Your task to perform on an android device: Open Youtube and go to "Your channel" Image 0: 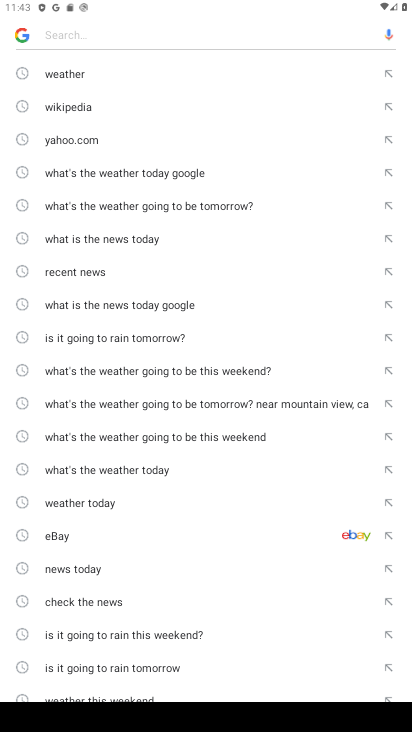
Step 0: press home button
Your task to perform on an android device: Open Youtube and go to "Your channel" Image 1: 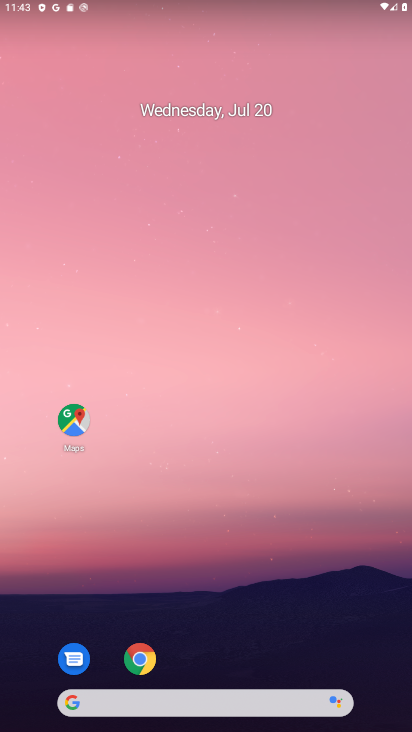
Step 1: drag from (179, 653) to (166, 21)
Your task to perform on an android device: Open Youtube and go to "Your channel" Image 2: 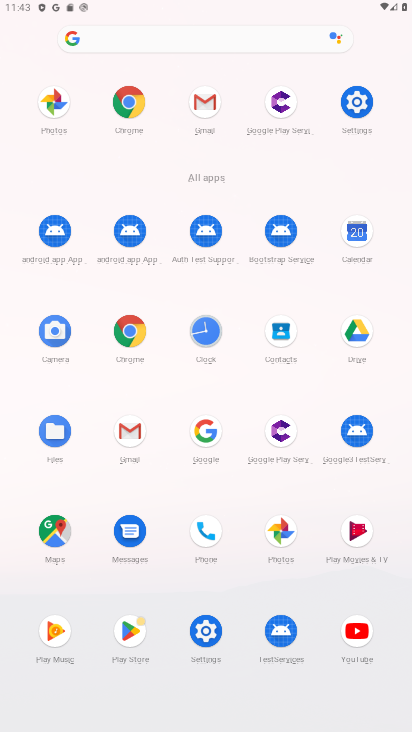
Step 2: click (362, 623)
Your task to perform on an android device: Open Youtube and go to "Your channel" Image 3: 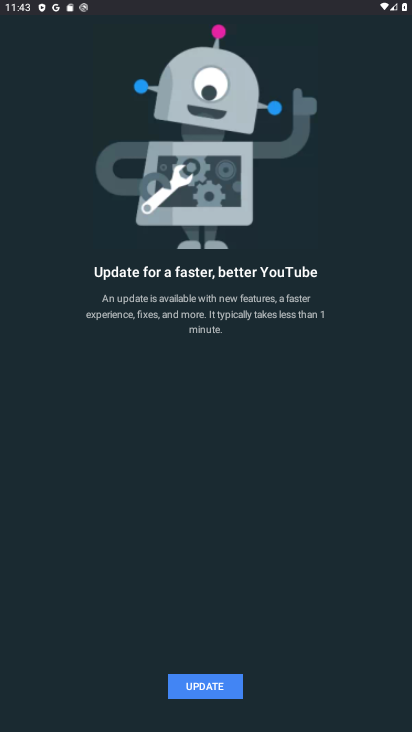
Step 3: click (226, 676)
Your task to perform on an android device: Open Youtube and go to "Your channel" Image 4: 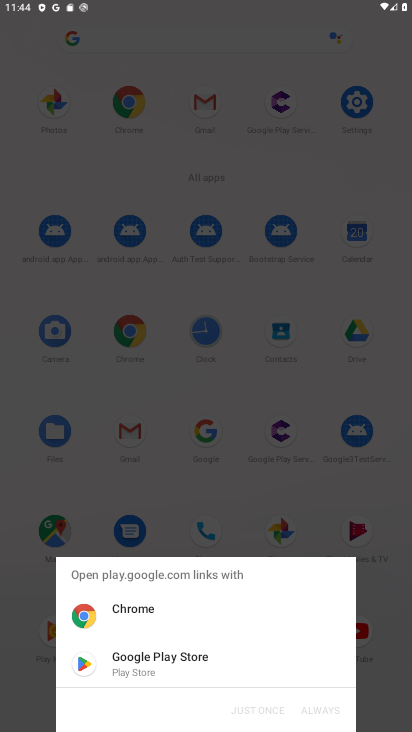
Step 4: click (226, 676)
Your task to perform on an android device: Open Youtube and go to "Your channel" Image 5: 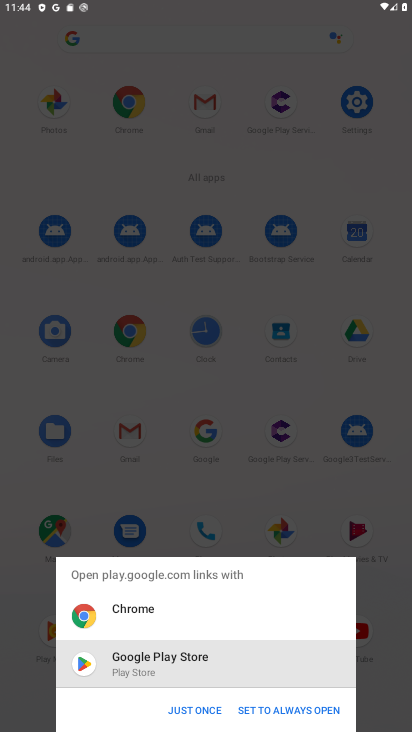
Step 5: click (215, 711)
Your task to perform on an android device: Open Youtube and go to "Your channel" Image 6: 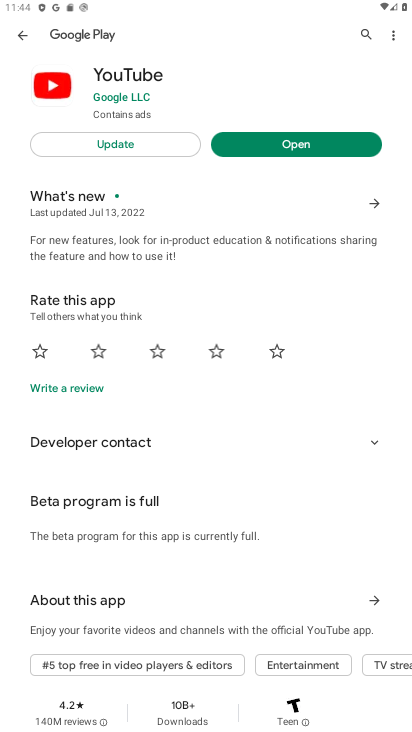
Step 6: click (140, 139)
Your task to perform on an android device: Open Youtube and go to "Your channel" Image 7: 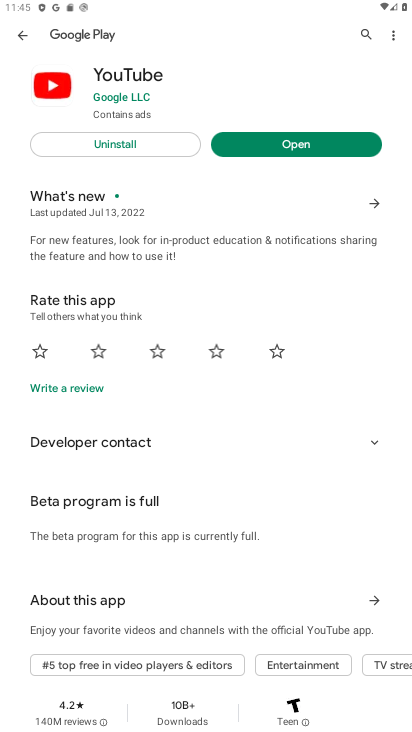
Step 7: click (264, 154)
Your task to perform on an android device: Open Youtube and go to "Your channel" Image 8: 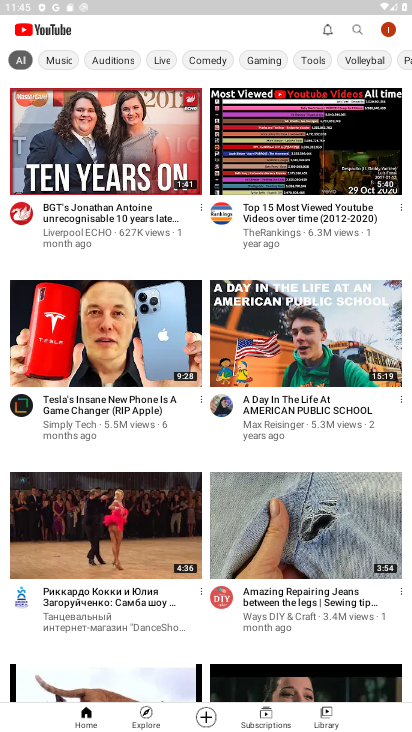
Step 8: click (359, 25)
Your task to perform on an android device: Open Youtube and go to "Your channel" Image 9: 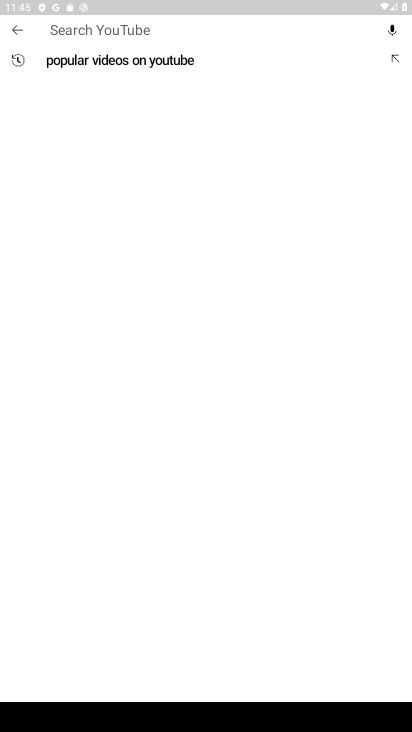
Step 9: type "your channel"
Your task to perform on an android device: Open Youtube and go to "Your channel" Image 10: 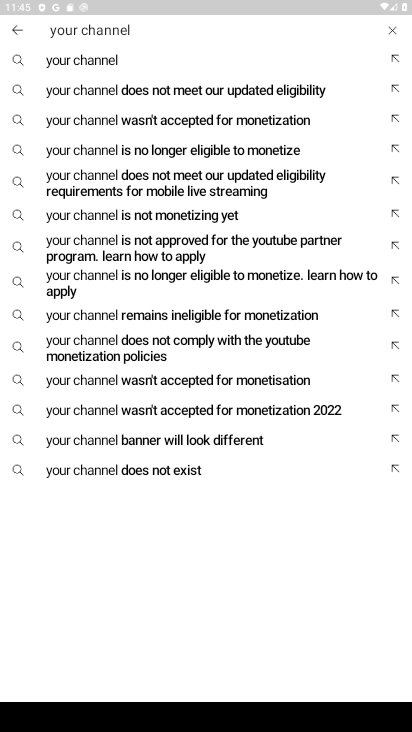
Step 10: click (91, 54)
Your task to perform on an android device: Open Youtube and go to "Your channel" Image 11: 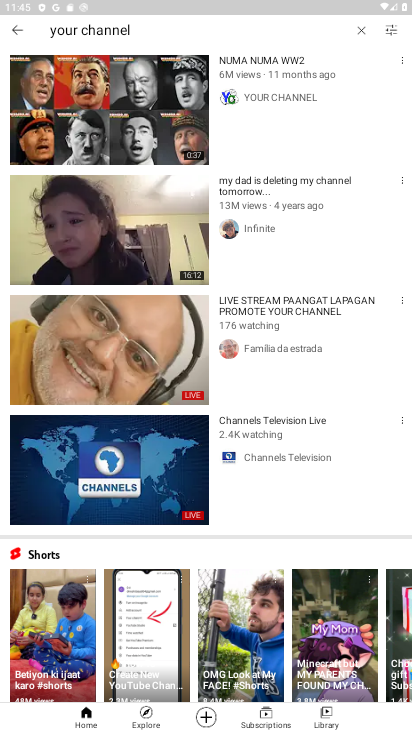
Step 11: task complete